Your task to perform on an android device: toggle show notifications on the lock screen Image 0: 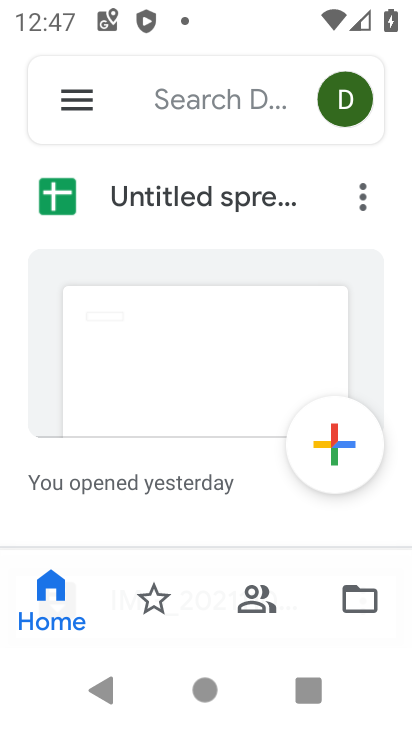
Step 0: press home button
Your task to perform on an android device: toggle show notifications on the lock screen Image 1: 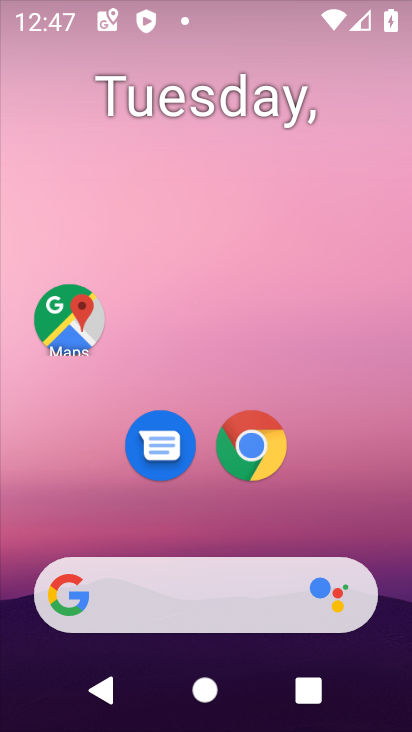
Step 1: drag from (348, 490) to (388, 94)
Your task to perform on an android device: toggle show notifications on the lock screen Image 2: 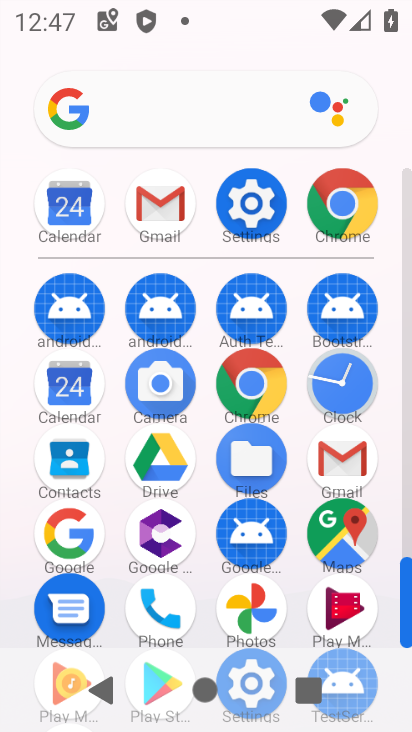
Step 2: click (254, 223)
Your task to perform on an android device: toggle show notifications on the lock screen Image 3: 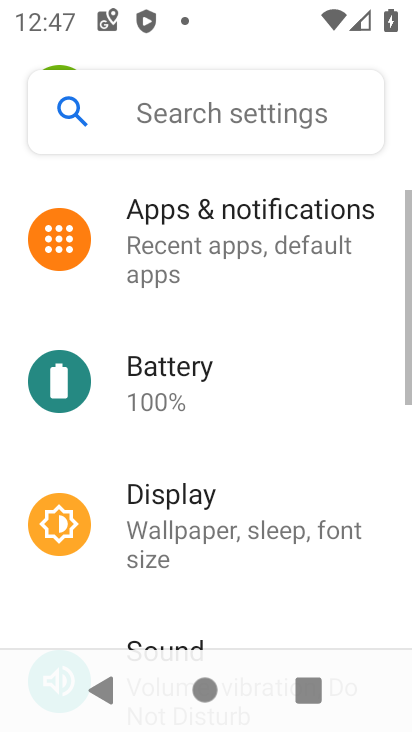
Step 3: drag from (241, 245) to (250, 601)
Your task to perform on an android device: toggle show notifications on the lock screen Image 4: 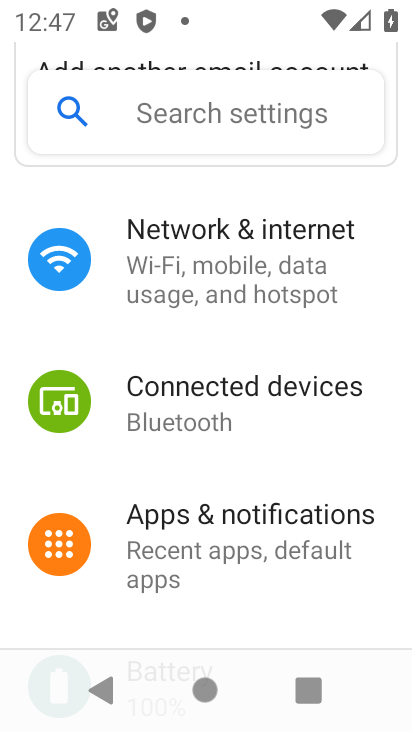
Step 4: click (260, 546)
Your task to perform on an android device: toggle show notifications on the lock screen Image 5: 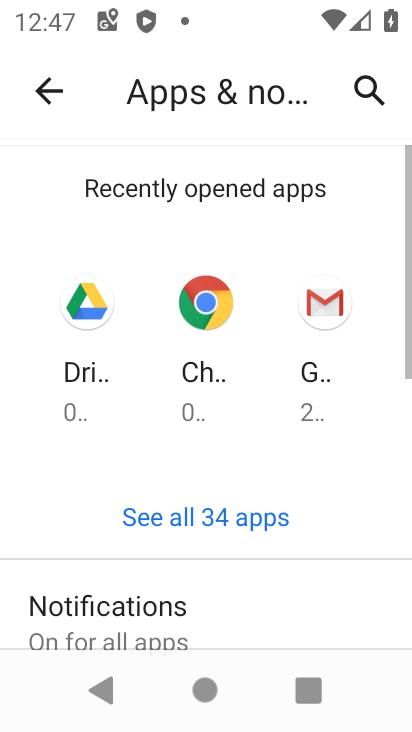
Step 5: drag from (178, 593) to (252, 82)
Your task to perform on an android device: toggle show notifications on the lock screen Image 6: 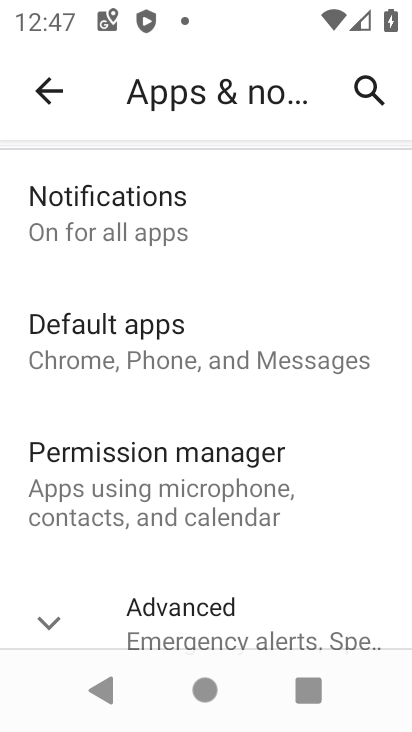
Step 6: click (124, 239)
Your task to perform on an android device: toggle show notifications on the lock screen Image 7: 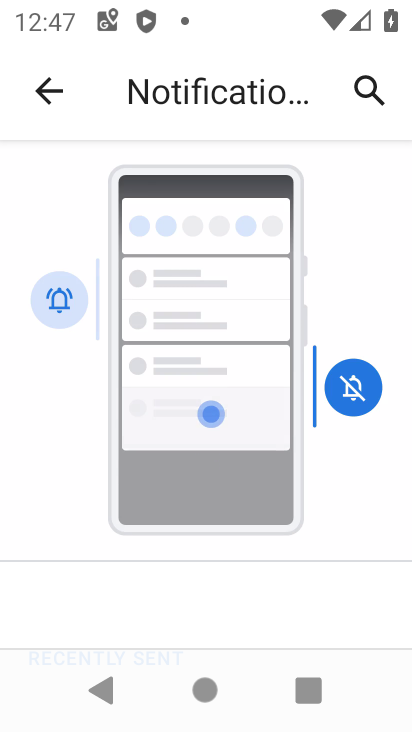
Step 7: drag from (213, 570) to (281, 137)
Your task to perform on an android device: toggle show notifications on the lock screen Image 8: 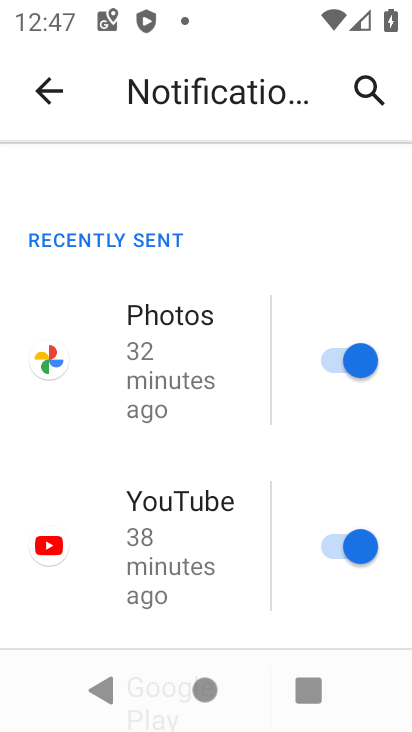
Step 8: drag from (163, 514) to (206, 79)
Your task to perform on an android device: toggle show notifications on the lock screen Image 9: 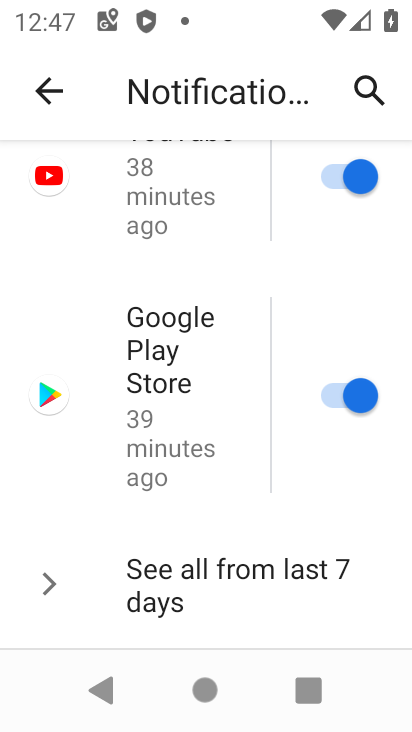
Step 9: drag from (203, 561) to (187, 162)
Your task to perform on an android device: toggle show notifications on the lock screen Image 10: 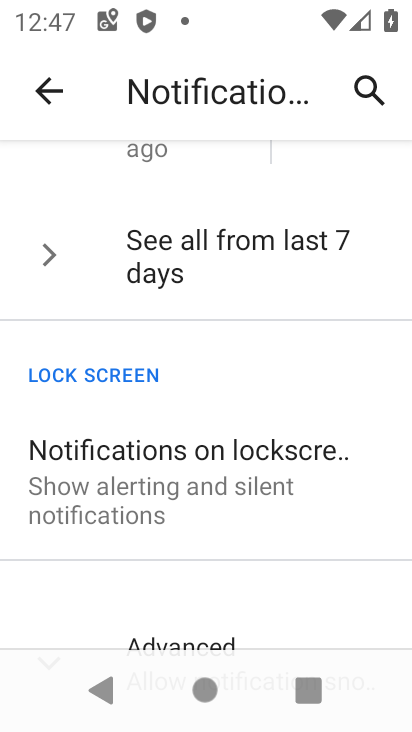
Step 10: click (180, 500)
Your task to perform on an android device: toggle show notifications on the lock screen Image 11: 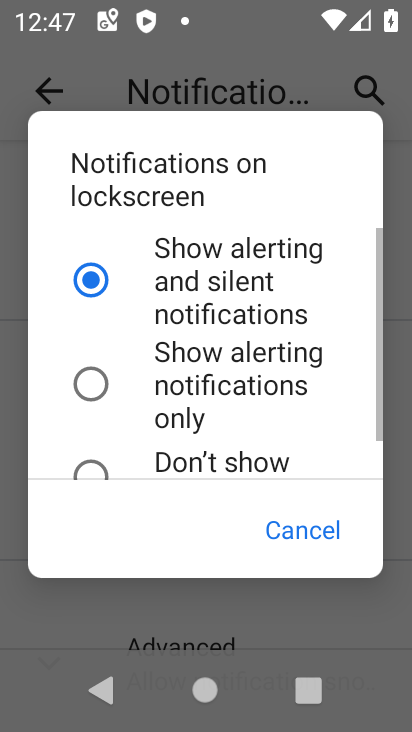
Step 11: drag from (212, 343) to (229, 118)
Your task to perform on an android device: toggle show notifications on the lock screen Image 12: 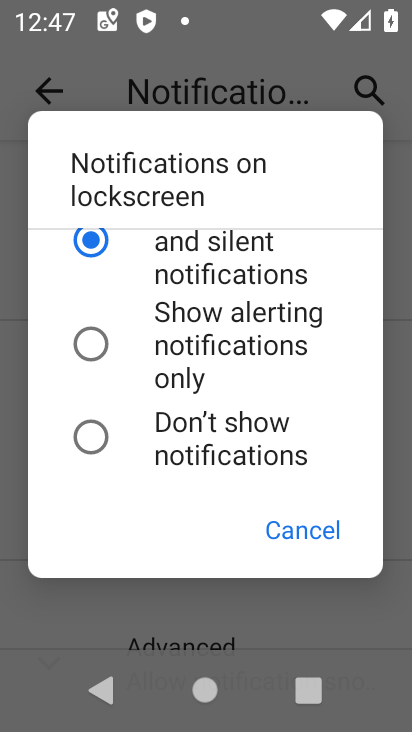
Step 12: click (186, 354)
Your task to perform on an android device: toggle show notifications on the lock screen Image 13: 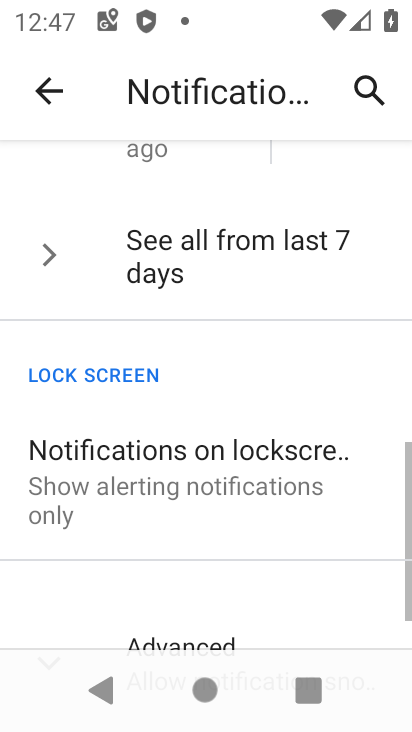
Step 13: task complete